Your task to perform on an android device: Clear the cart on ebay. Image 0: 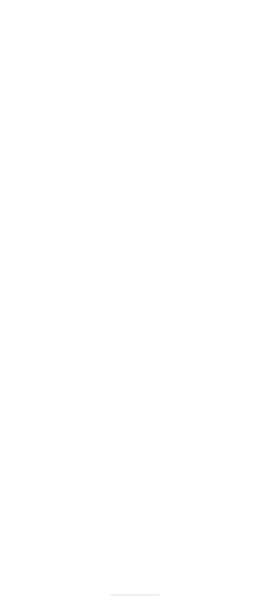
Step 0: press home button
Your task to perform on an android device: Clear the cart on ebay. Image 1: 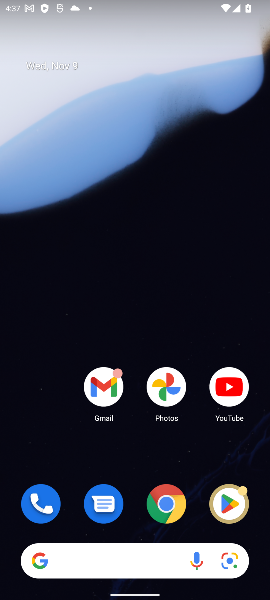
Step 1: click (118, 554)
Your task to perform on an android device: Clear the cart on ebay. Image 2: 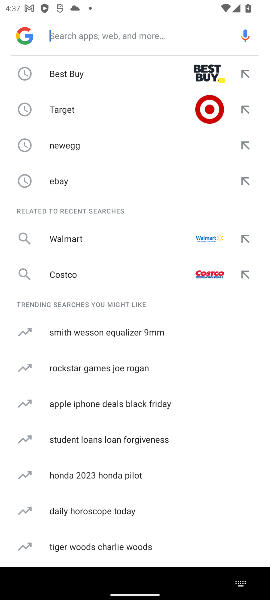
Step 2: click (58, 182)
Your task to perform on an android device: Clear the cart on ebay. Image 3: 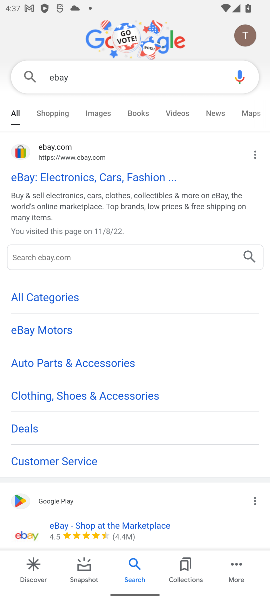
Step 3: click (52, 149)
Your task to perform on an android device: Clear the cart on ebay. Image 4: 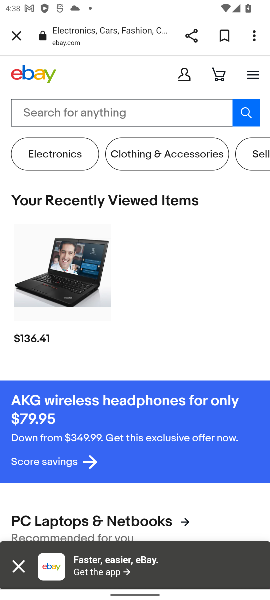
Step 4: click (17, 570)
Your task to perform on an android device: Clear the cart on ebay. Image 5: 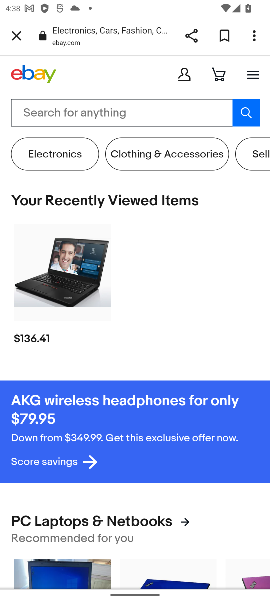
Step 5: drag from (112, 465) to (167, 183)
Your task to perform on an android device: Clear the cart on ebay. Image 6: 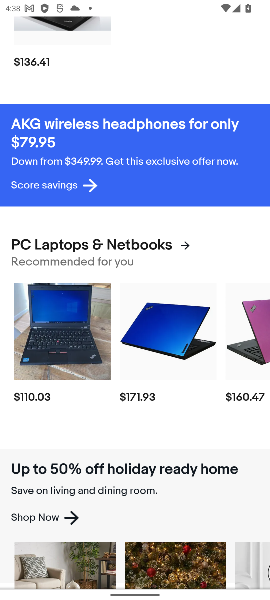
Step 6: click (86, 372)
Your task to perform on an android device: Clear the cart on ebay. Image 7: 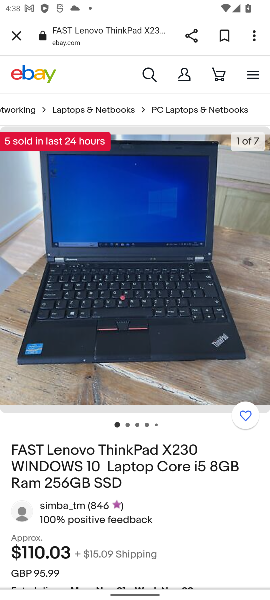
Step 7: drag from (173, 470) to (156, 299)
Your task to perform on an android device: Clear the cart on ebay. Image 8: 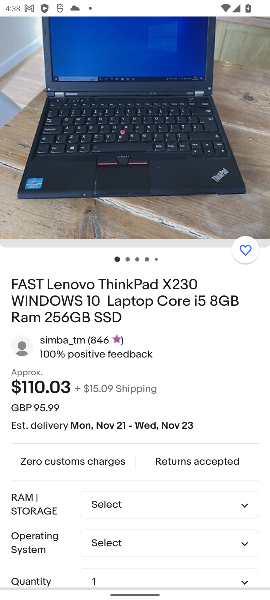
Step 8: click (122, 274)
Your task to perform on an android device: Clear the cart on ebay. Image 9: 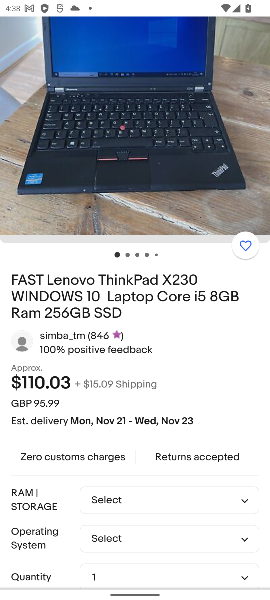
Step 9: drag from (134, 356) to (142, 314)
Your task to perform on an android device: Clear the cart on ebay. Image 10: 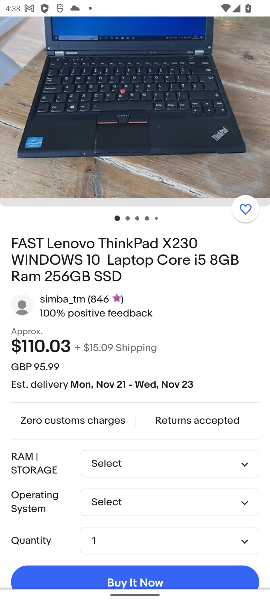
Step 10: drag from (155, 495) to (156, 370)
Your task to perform on an android device: Clear the cart on ebay. Image 11: 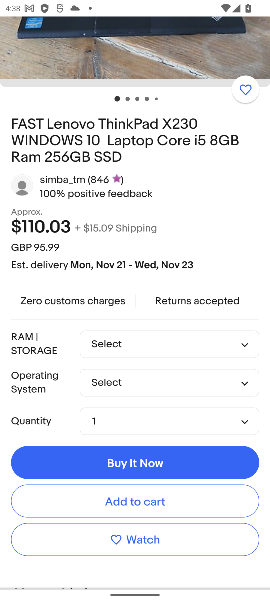
Step 11: drag from (229, 172) to (229, 327)
Your task to perform on an android device: Clear the cart on ebay. Image 12: 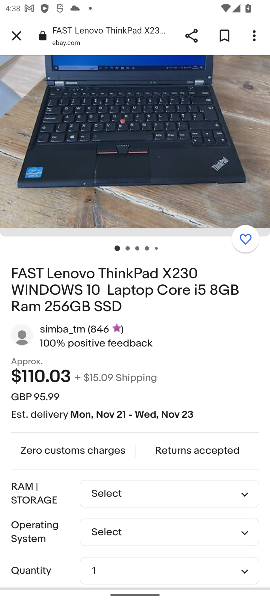
Step 12: drag from (189, 372) to (185, 466)
Your task to perform on an android device: Clear the cart on ebay. Image 13: 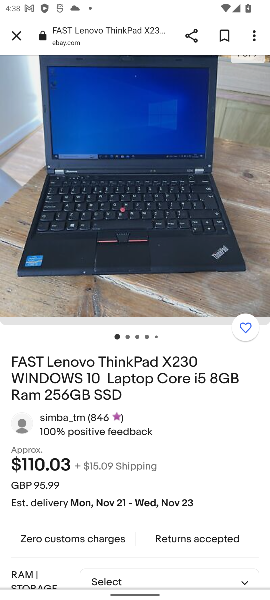
Step 13: drag from (210, 219) to (197, 423)
Your task to perform on an android device: Clear the cart on ebay. Image 14: 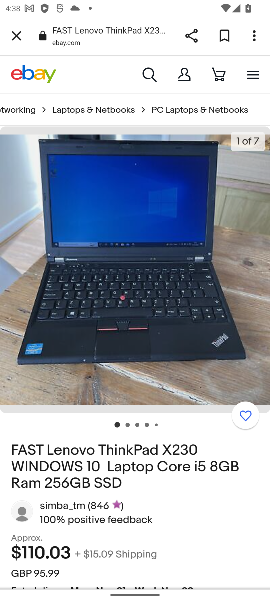
Step 14: click (219, 74)
Your task to perform on an android device: Clear the cart on ebay. Image 15: 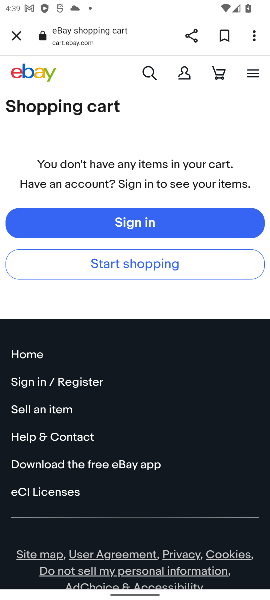
Step 15: task complete